Your task to perform on an android device: open app "Google Maps" (install if not already installed) Image 0: 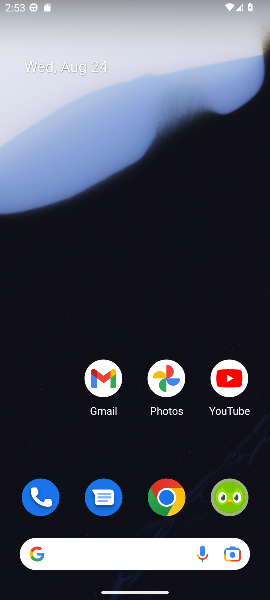
Step 0: drag from (121, 548) to (158, 173)
Your task to perform on an android device: open app "Google Maps" (install if not already installed) Image 1: 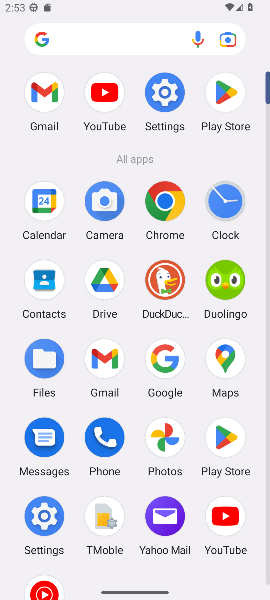
Step 1: click (225, 97)
Your task to perform on an android device: open app "Google Maps" (install if not already installed) Image 2: 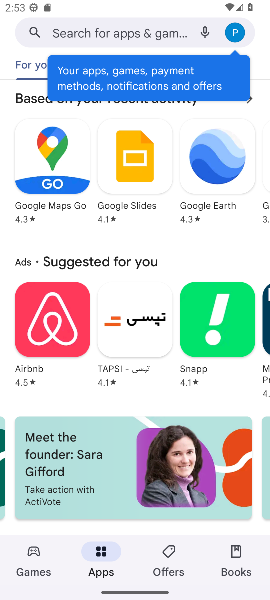
Step 2: click (113, 25)
Your task to perform on an android device: open app "Google Maps" (install if not already installed) Image 3: 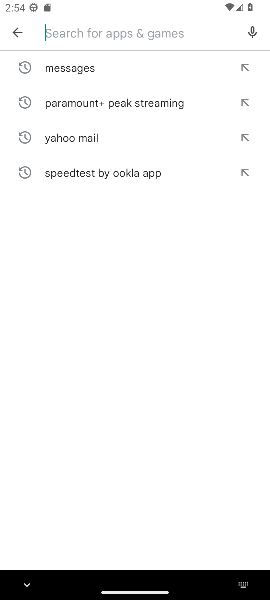
Step 3: type "Google Maps"
Your task to perform on an android device: open app "Google Maps" (install if not already installed) Image 4: 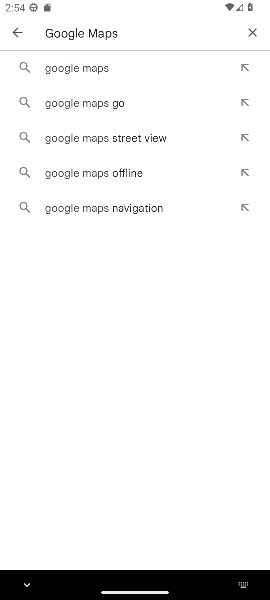
Step 4: click (94, 71)
Your task to perform on an android device: open app "Google Maps" (install if not already installed) Image 5: 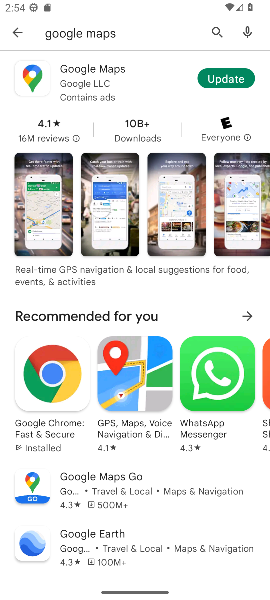
Step 5: click (95, 71)
Your task to perform on an android device: open app "Google Maps" (install if not already installed) Image 6: 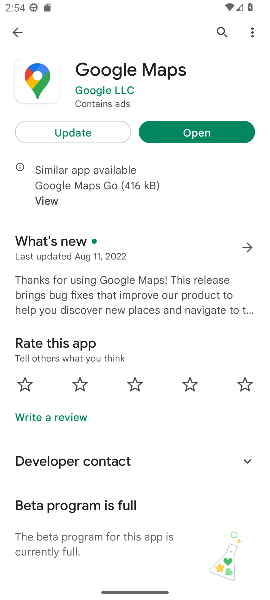
Step 6: click (186, 131)
Your task to perform on an android device: open app "Google Maps" (install if not already installed) Image 7: 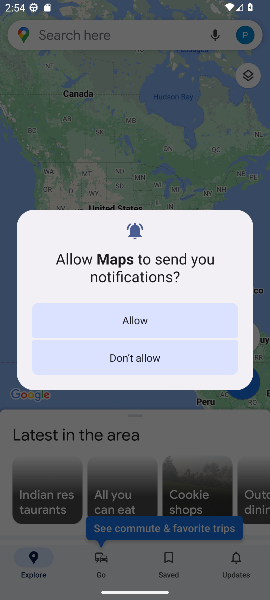
Step 7: click (130, 322)
Your task to perform on an android device: open app "Google Maps" (install if not already installed) Image 8: 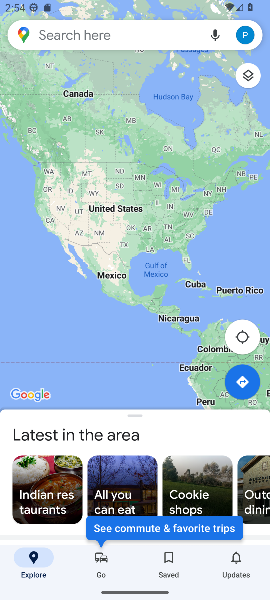
Step 8: task complete